Your task to perform on an android device: see tabs open on other devices in the chrome app Image 0: 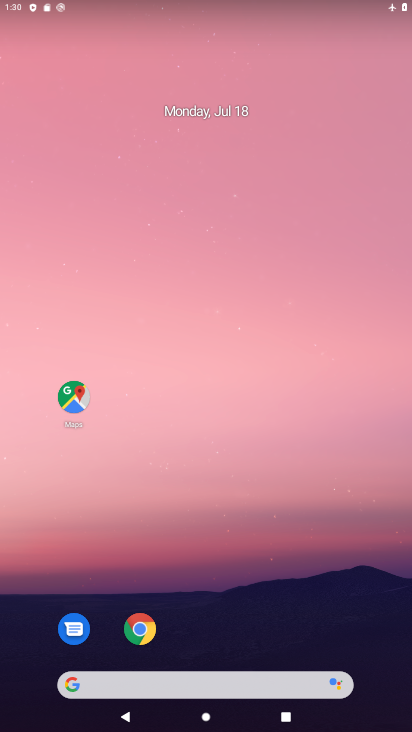
Step 0: drag from (260, 599) to (221, 140)
Your task to perform on an android device: see tabs open on other devices in the chrome app Image 1: 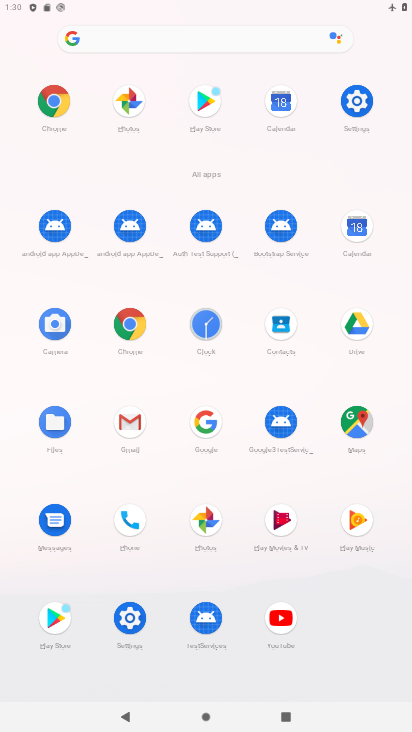
Step 1: click (127, 326)
Your task to perform on an android device: see tabs open on other devices in the chrome app Image 2: 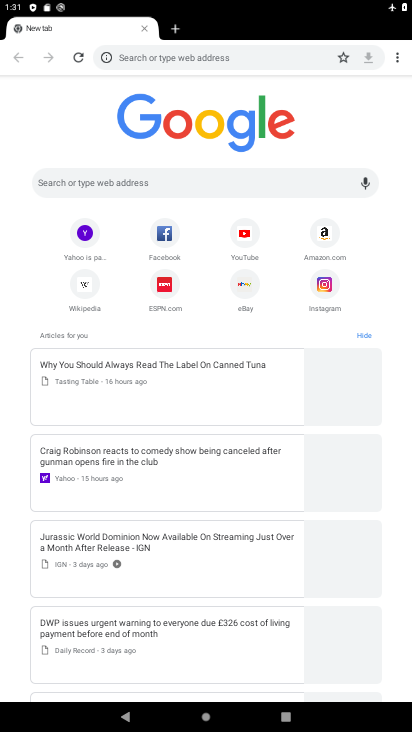
Step 2: task complete